Your task to perform on an android device: open a bookmark in the chrome app Image 0: 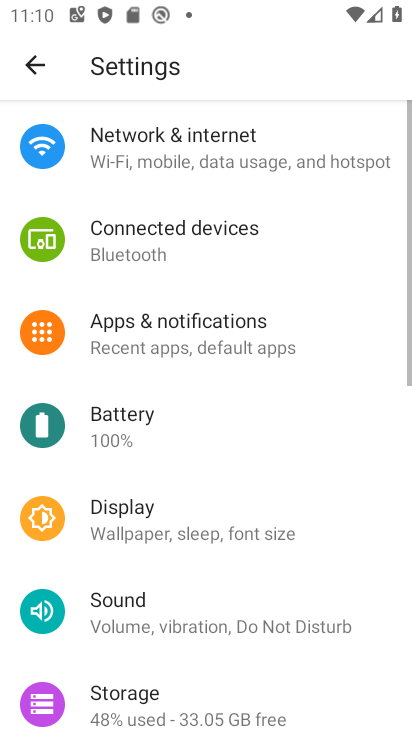
Step 0: press back button
Your task to perform on an android device: open a bookmark in the chrome app Image 1: 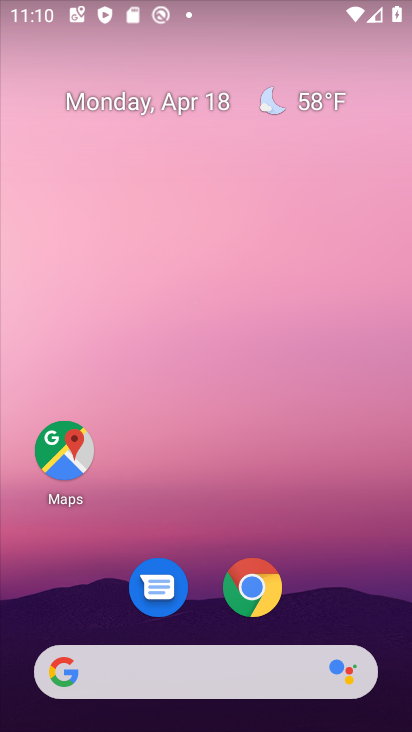
Step 1: click (269, 569)
Your task to perform on an android device: open a bookmark in the chrome app Image 2: 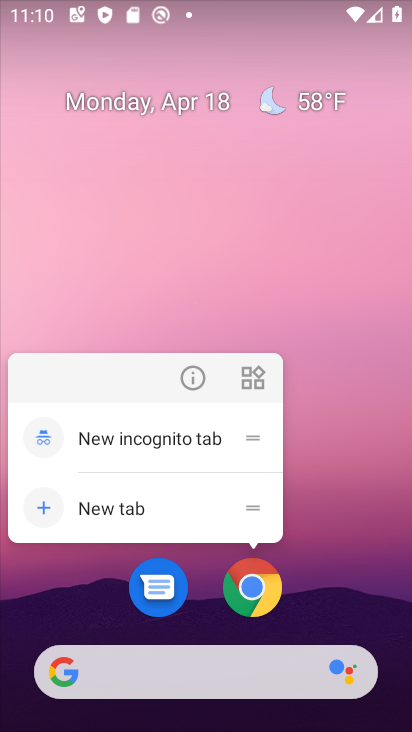
Step 2: click (261, 594)
Your task to perform on an android device: open a bookmark in the chrome app Image 3: 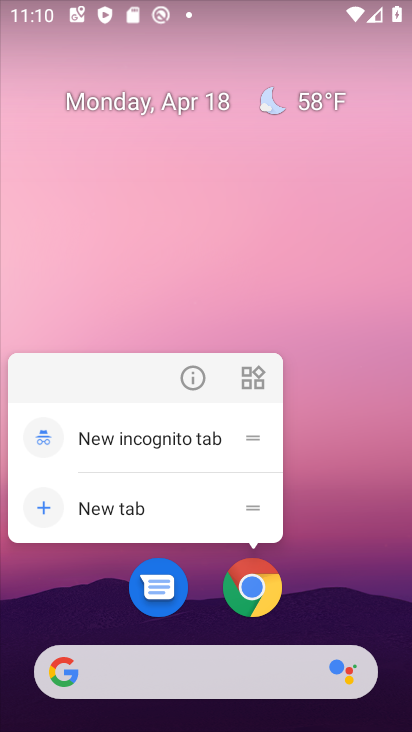
Step 3: click (257, 587)
Your task to perform on an android device: open a bookmark in the chrome app Image 4: 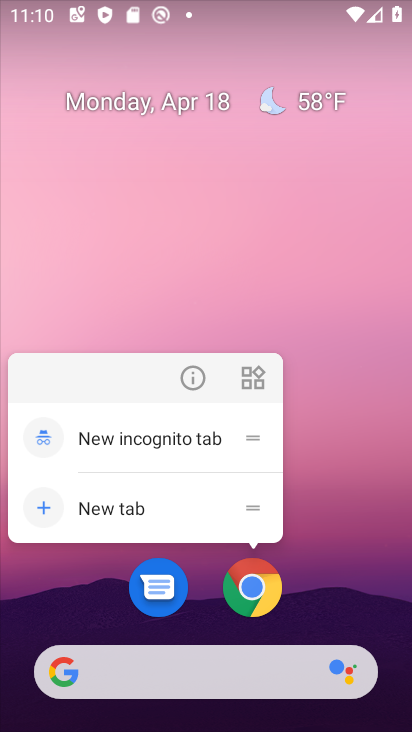
Step 4: click (251, 599)
Your task to perform on an android device: open a bookmark in the chrome app Image 5: 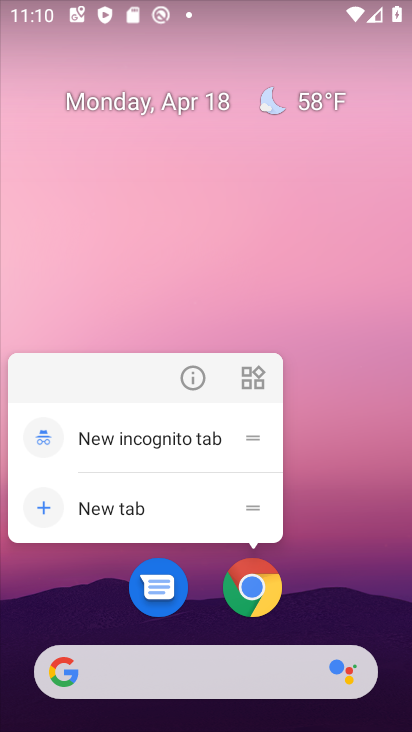
Step 5: click (267, 589)
Your task to perform on an android device: open a bookmark in the chrome app Image 6: 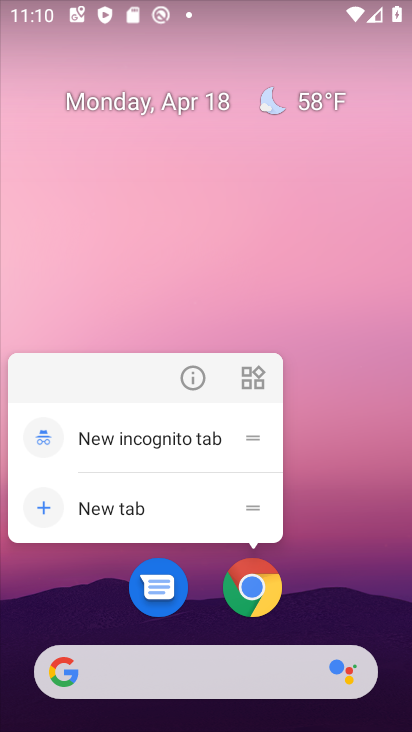
Step 6: click (255, 594)
Your task to perform on an android device: open a bookmark in the chrome app Image 7: 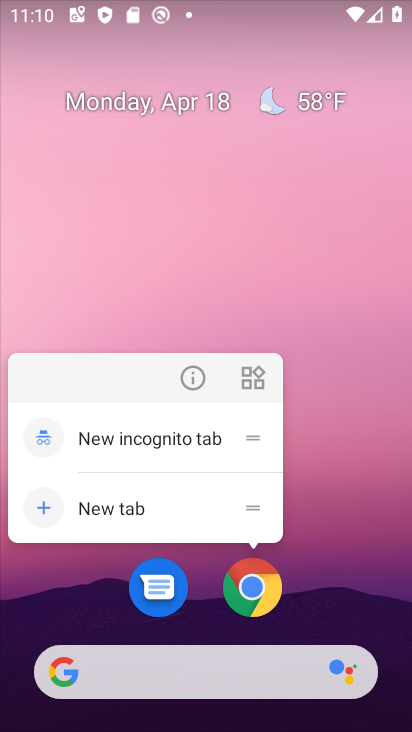
Step 7: click (255, 589)
Your task to perform on an android device: open a bookmark in the chrome app Image 8: 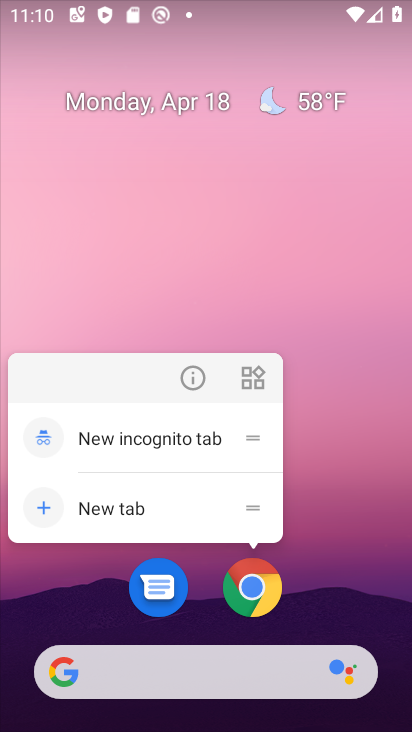
Step 8: click (268, 602)
Your task to perform on an android device: open a bookmark in the chrome app Image 9: 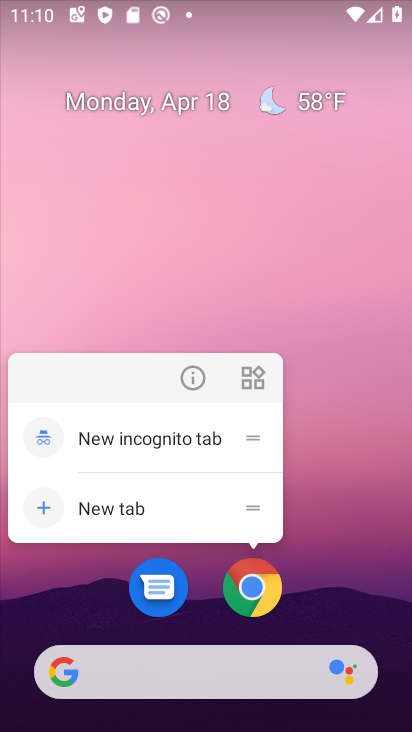
Step 9: click (266, 590)
Your task to perform on an android device: open a bookmark in the chrome app Image 10: 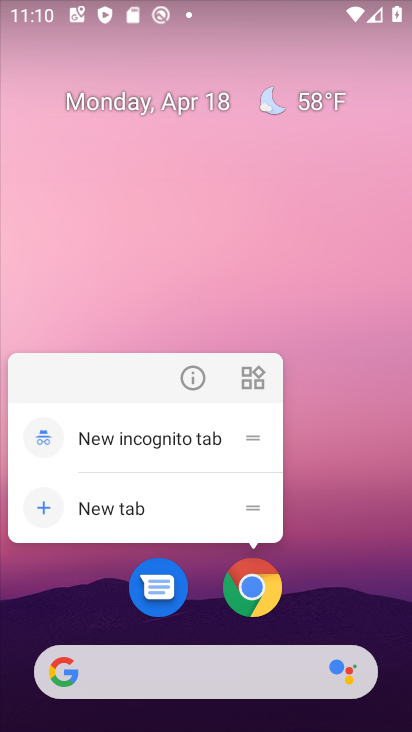
Step 10: click (264, 588)
Your task to perform on an android device: open a bookmark in the chrome app Image 11: 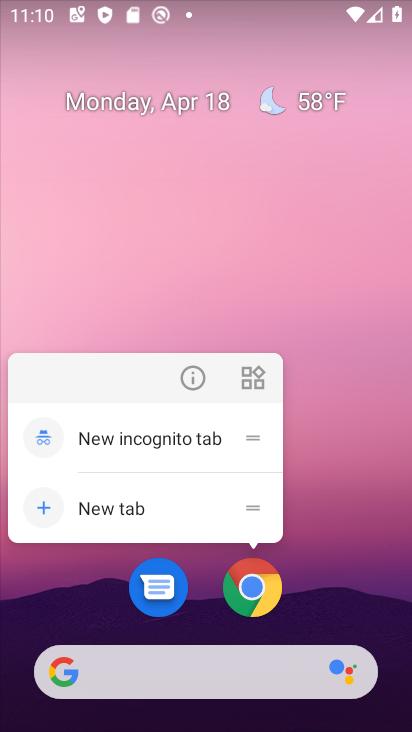
Step 11: click (262, 585)
Your task to perform on an android device: open a bookmark in the chrome app Image 12: 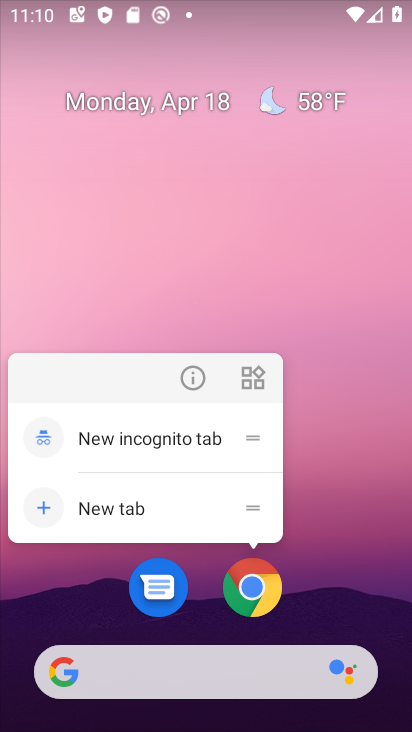
Step 12: click (262, 580)
Your task to perform on an android device: open a bookmark in the chrome app Image 13: 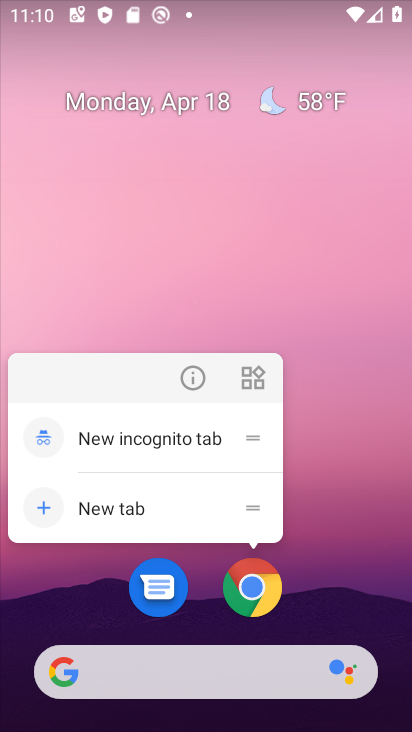
Step 13: click (240, 587)
Your task to perform on an android device: open a bookmark in the chrome app Image 14: 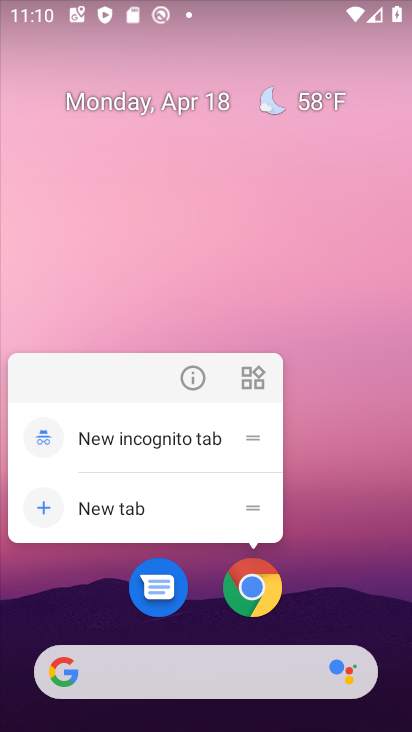
Step 14: click (256, 583)
Your task to perform on an android device: open a bookmark in the chrome app Image 15: 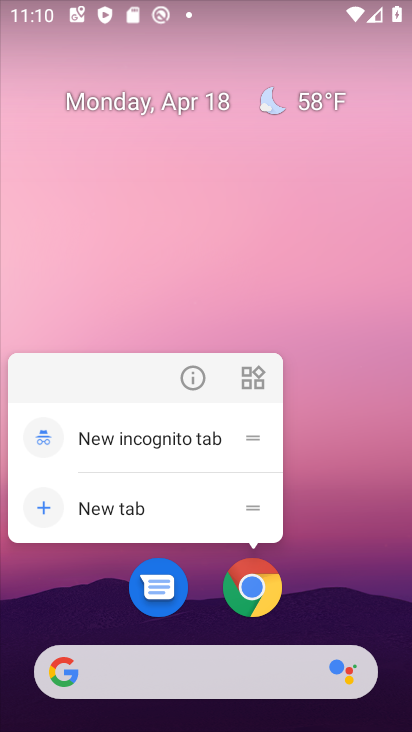
Step 15: click (254, 575)
Your task to perform on an android device: open a bookmark in the chrome app Image 16: 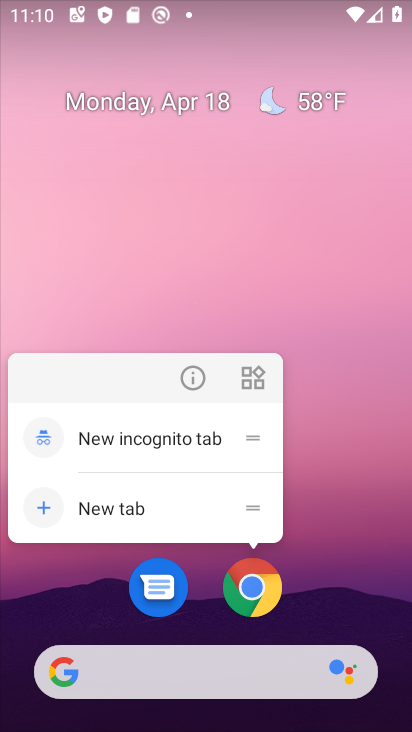
Step 16: click (244, 598)
Your task to perform on an android device: open a bookmark in the chrome app Image 17: 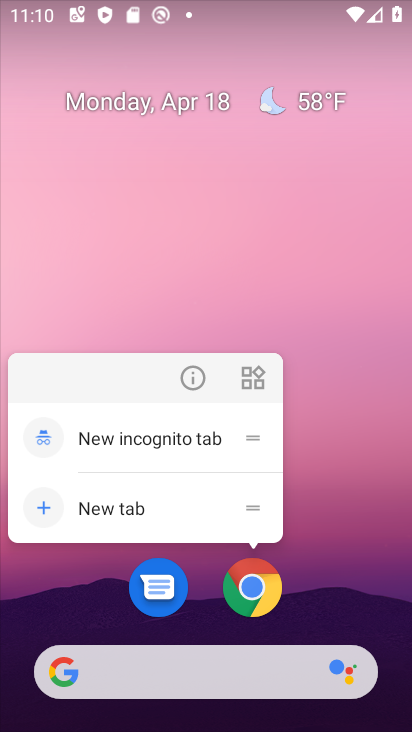
Step 17: click (244, 582)
Your task to perform on an android device: open a bookmark in the chrome app Image 18: 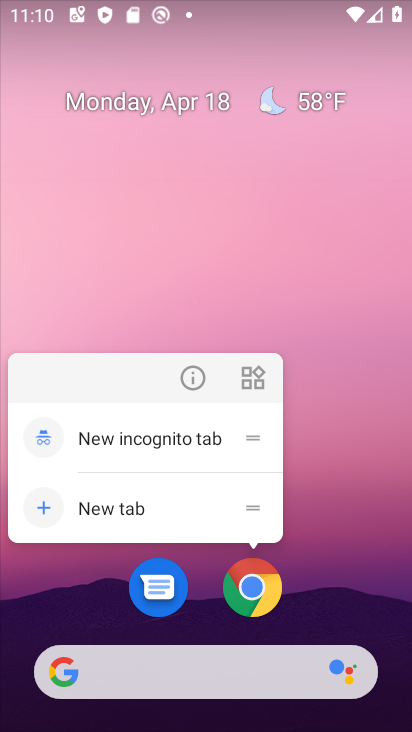
Step 18: click (240, 568)
Your task to perform on an android device: open a bookmark in the chrome app Image 19: 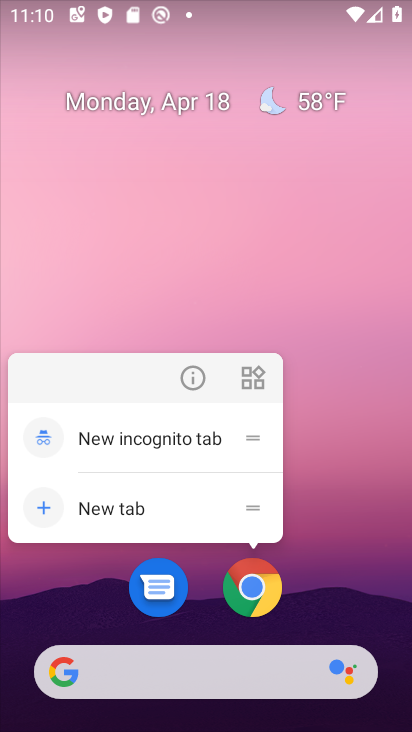
Step 19: click (243, 592)
Your task to perform on an android device: open a bookmark in the chrome app Image 20: 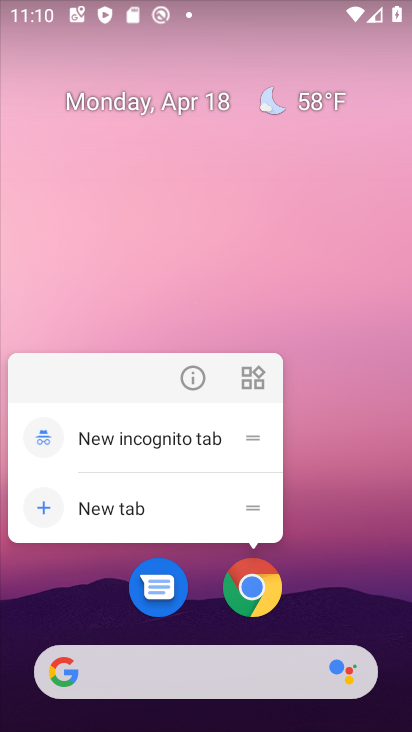
Step 20: click (248, 606)
Your task to perform on an android device: open a bookmark in the chrome app Image 21: 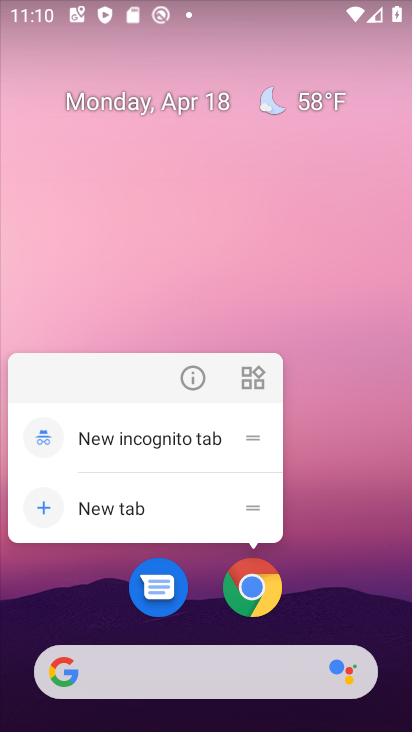
Step 21: click (254, 596)
Your task to perform on an android device: open a bookmark in the chrome app Image 22: 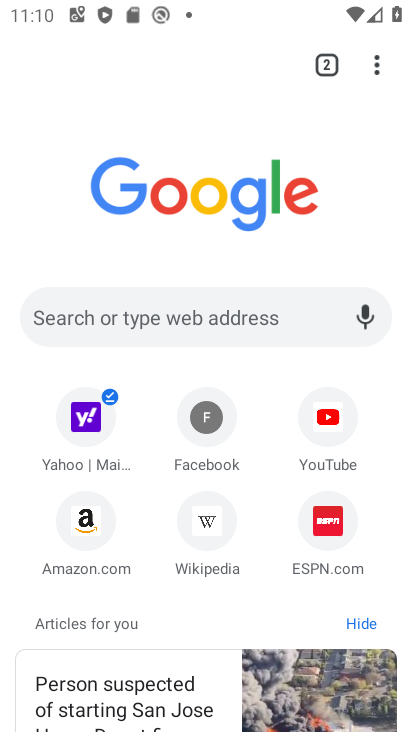
Step 22: click (387, 71)
Your task to perform on an android device: open a bookmark in the chrome app Image 23: 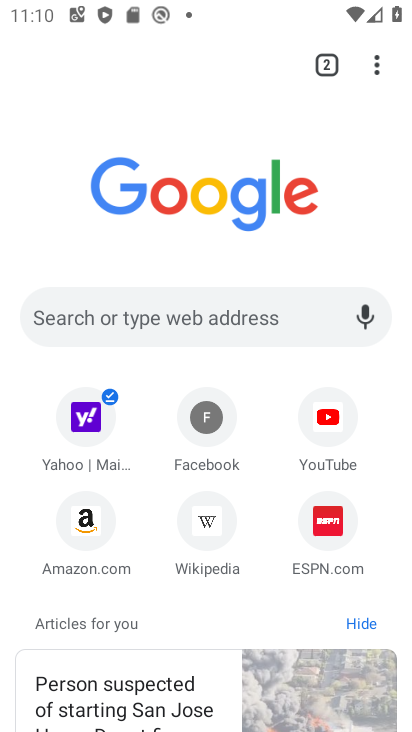
Step 23: task complete